Your task to perform on an android device: change text size in settings app Image 0: 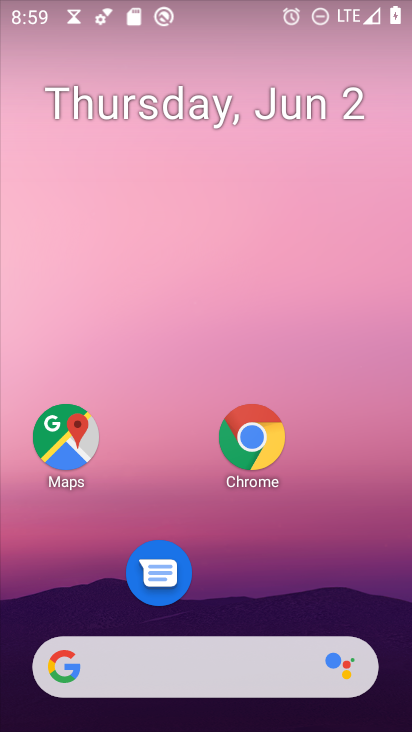
Step 0: press home button
Your task to perform on an android device: change text size in settings app Image 1: 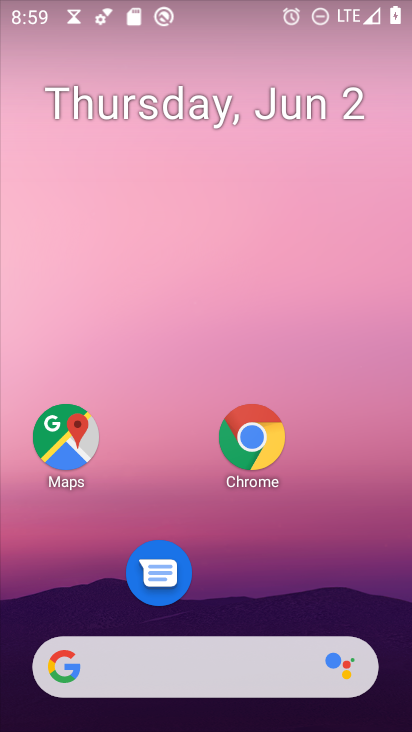
Step 1: drag from (181, 675) to (286, 196)
Your task to perform on an android device: change text size in settings app Image 2: 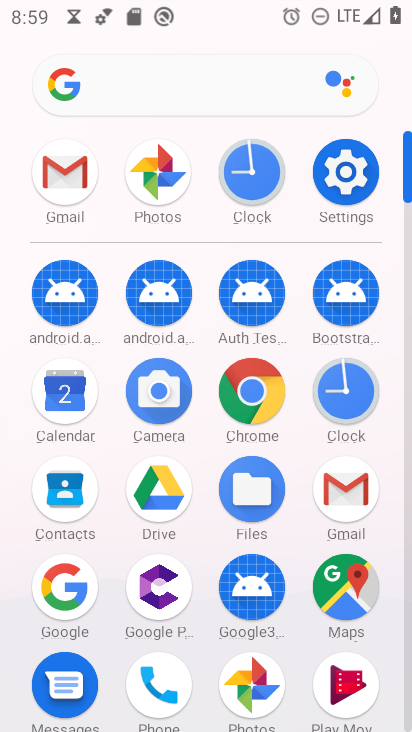
Step 2: click (350, 163)
Your task to perform on an android device: change text size in settings app Image 3: 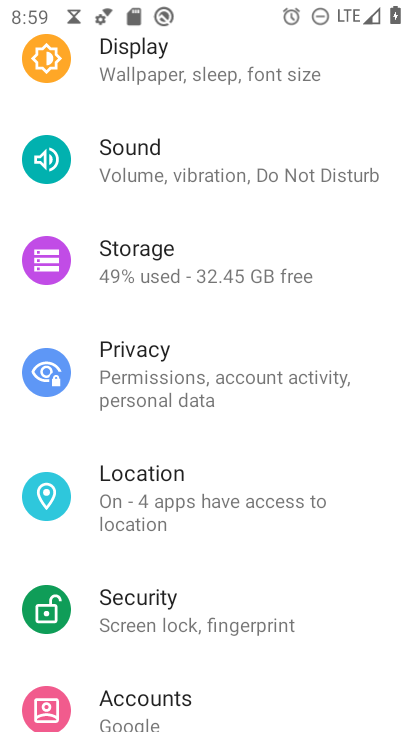
Step 3: click (245, 69)
Your task to perform on an android device: change text size in settings app Image 4: 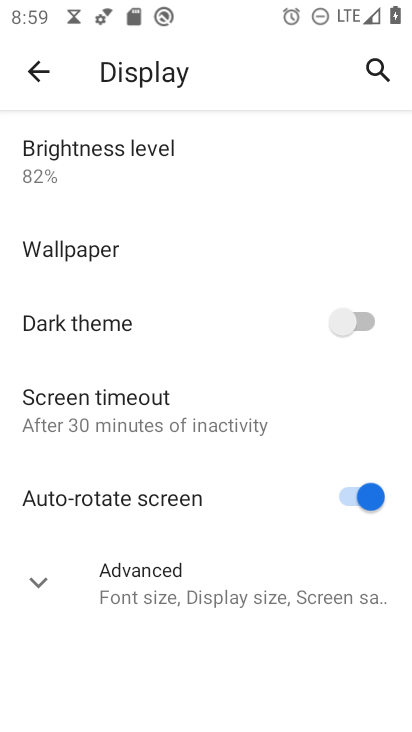
Step 4: click (137, 591)
Your task to perform on an android device: change text size in settings app Image 5: 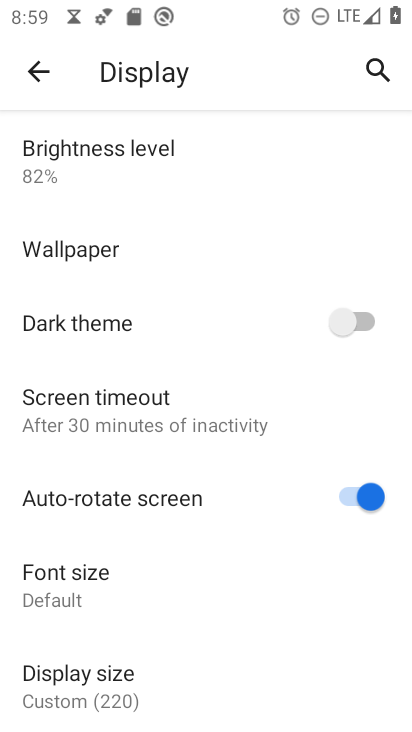
Step 5: click (63, 583)
Your task to perform on an android device: change text size in settings app Image 6: 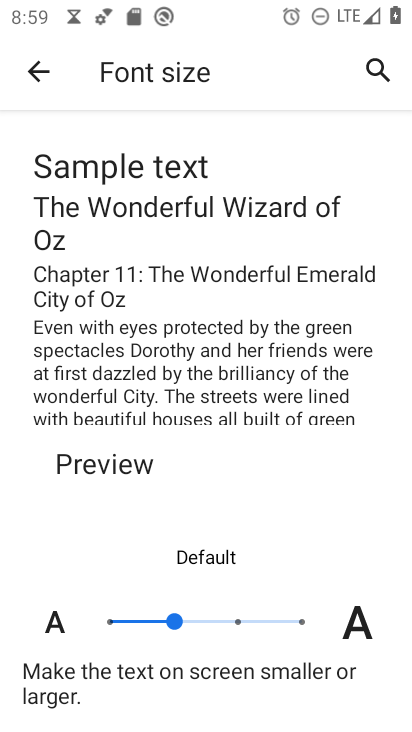
Step 6: click (109, 621)
Your task to perform on an android device: change text size in settings app Image 7: 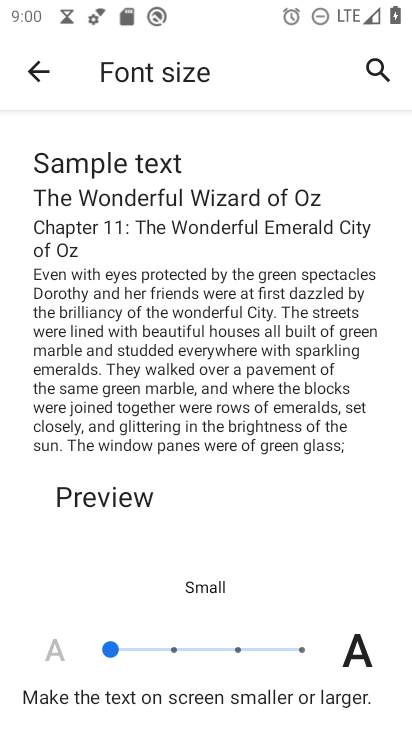
Step 7: task complete